Your task to perform on an android device: turn on improve location accuracy Image 0: 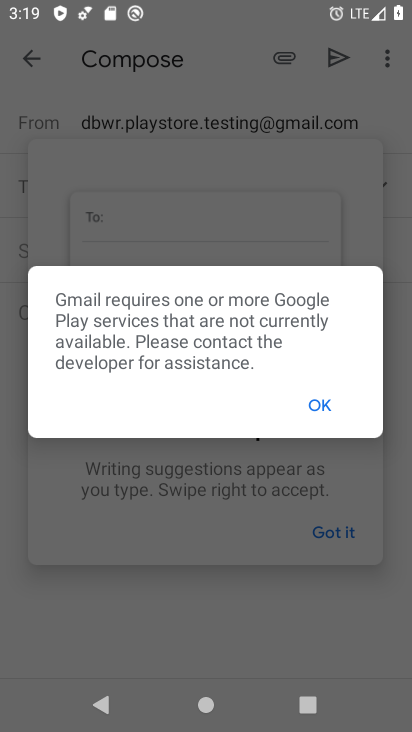
Step 0: press home button
Your task to perform on an android device: turn on improve location accuracy Image 1: 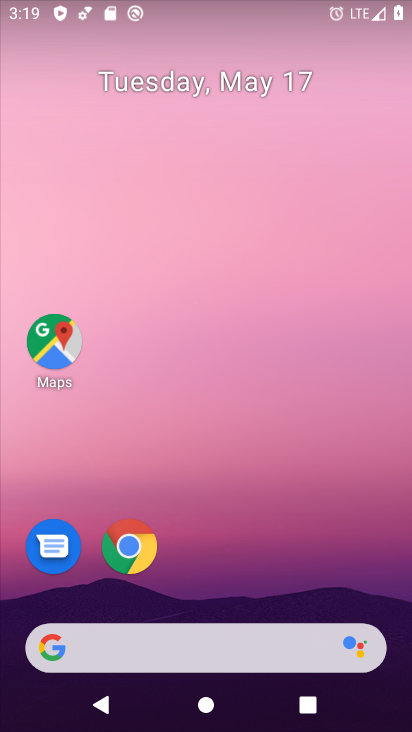
Step 1: drag from (327, 580) to (387, 15)
Your task to perform on an android device: turn on improve location accuracy Image 2: 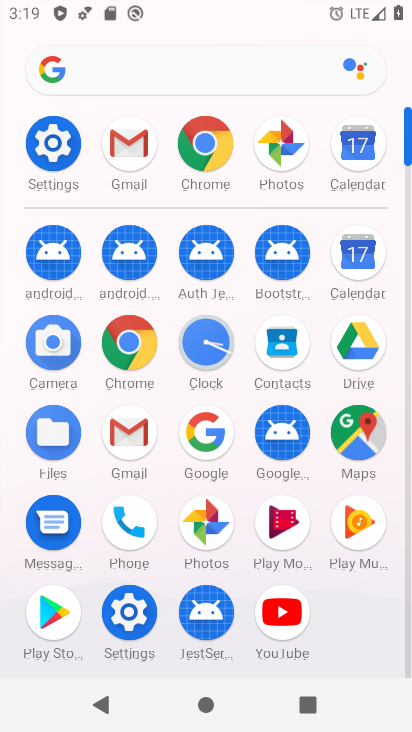
Step 2: click (67, 148)
Your task to perform on an android device: turn on improve location accuracy Image 3: 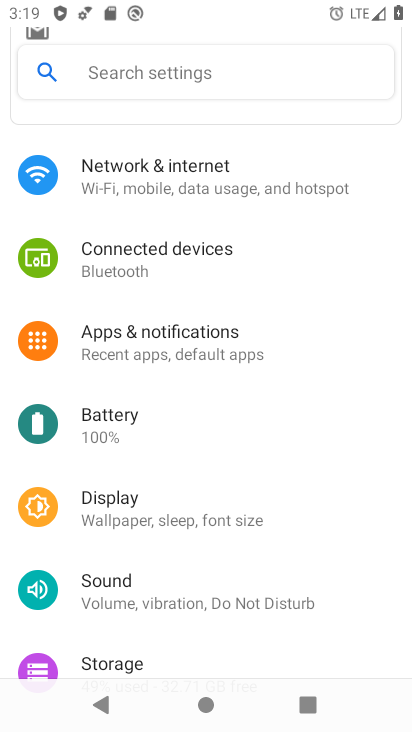
Step 3: drag from (175, 608) to (263, 55)
Your task to perform on an android device: turn on improve location accuracy Image 4: 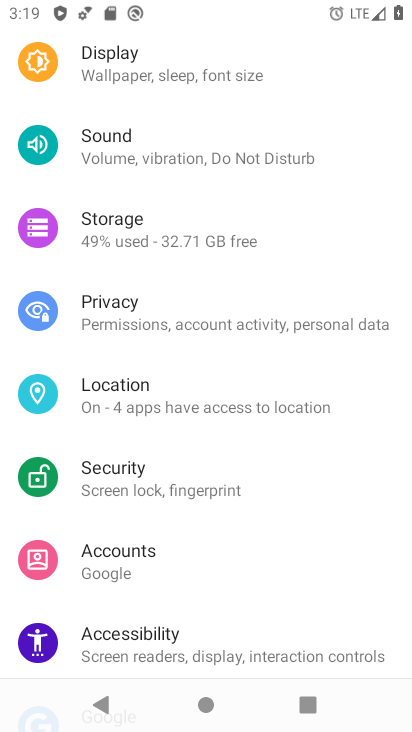
Step 4: click (143, 388)
Your task to perform on an android device: turn on improve location accuracy Image 5: 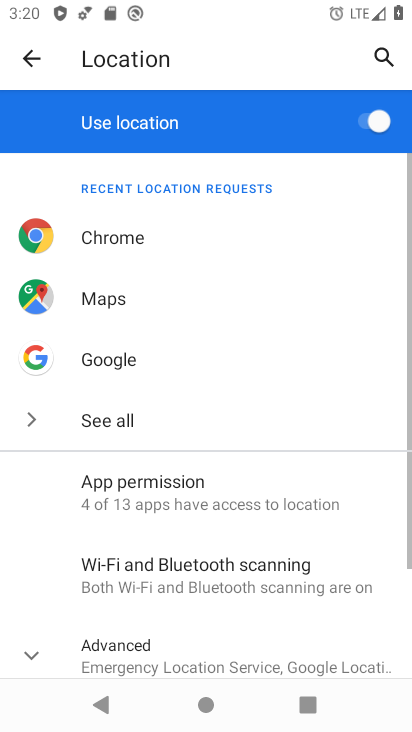
Step 5: click (164, 624)
Your task to perform on an android device: turn on improve location accuracy Image 6: 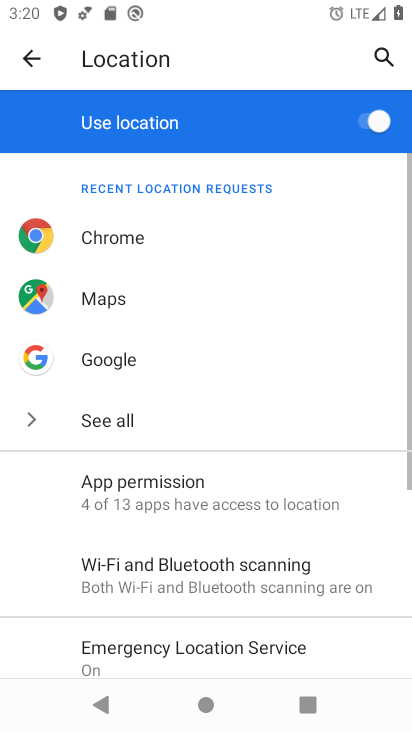
Step 6: drag from (164, 624) to (263, 247)
Your task to perform on an android device: turn on improve location accuracy Image 7: 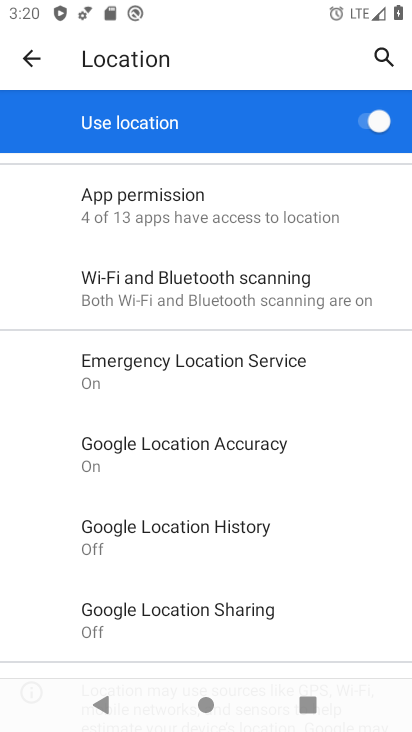
Step 7: click (190, 449)
Your task to perform on an android device: turn on improve location accuracy Image 8: 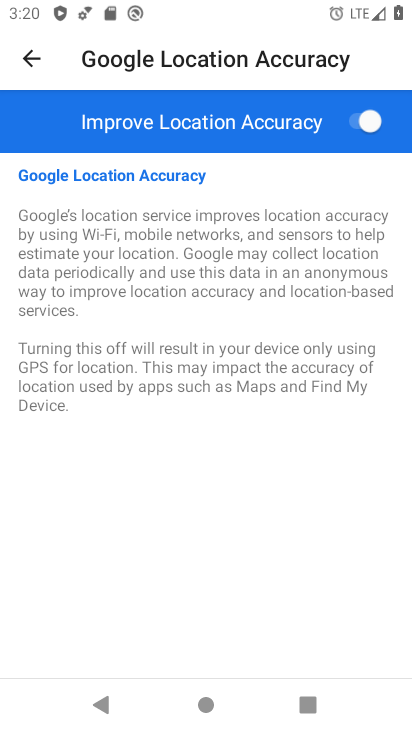
Step 8: task complete